Your task to perform on an android device: move an email to a new category in the gmail app Image 0: 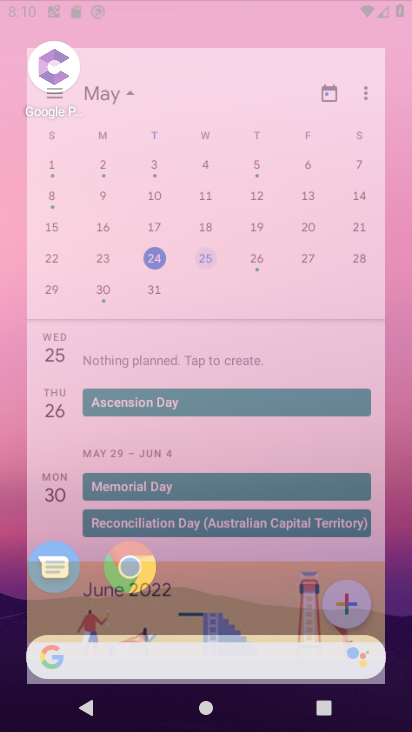
Step 0: drag from (293, 552) to (226, 43)
Your task to perform on an android device: move an email to a new category in the gmail app Image 1: 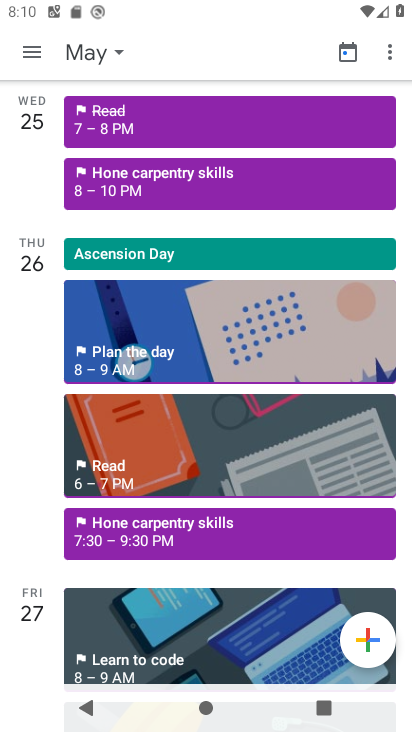
Step 1: press home button
Your task to perform on an android device: move an email to a new category in the gmail app Image 2: 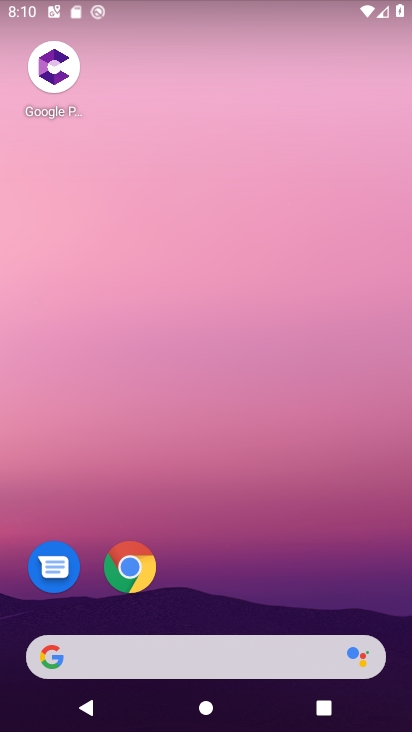
Step 2: drag from (252, 548) to (221, 29)
Your task to perform on an android device: move an email to a new category in the gmail app Image 3: 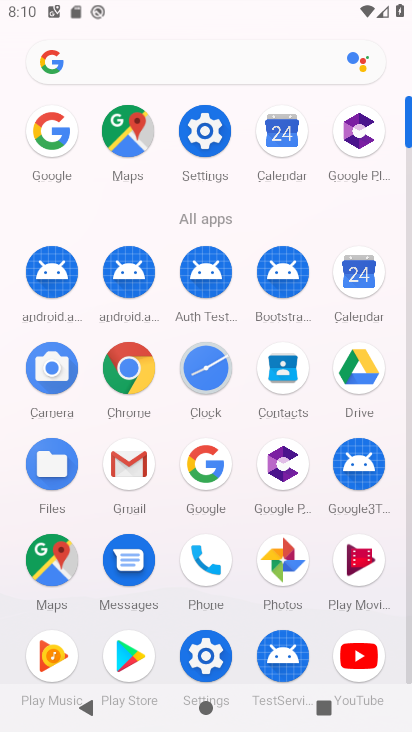
Step 3: click (132, 462)
Your task to perform on an android device: move an email to a new category in the gmail app Image 4: 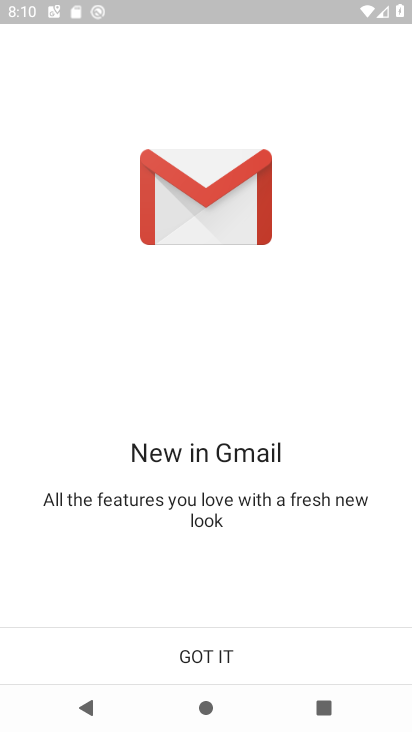
Step 4: click (238, 657)
Your task to perform on an android device: move an email to a new category in the gmail app Image 5: 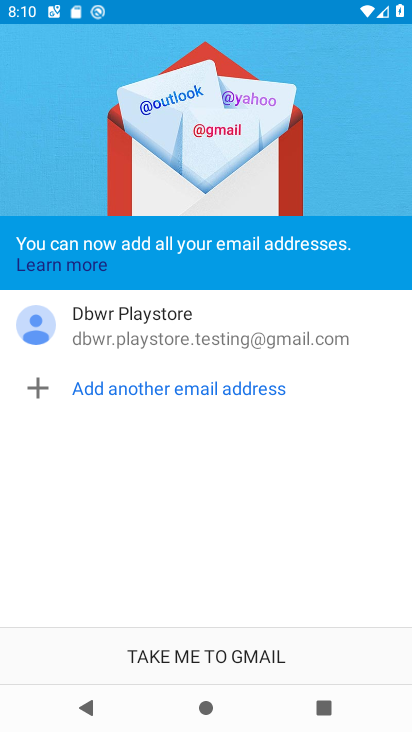
Step 5: click (239, 655)
Your task to perform on an android device: move an email to a new category in the gmail app Image 6: 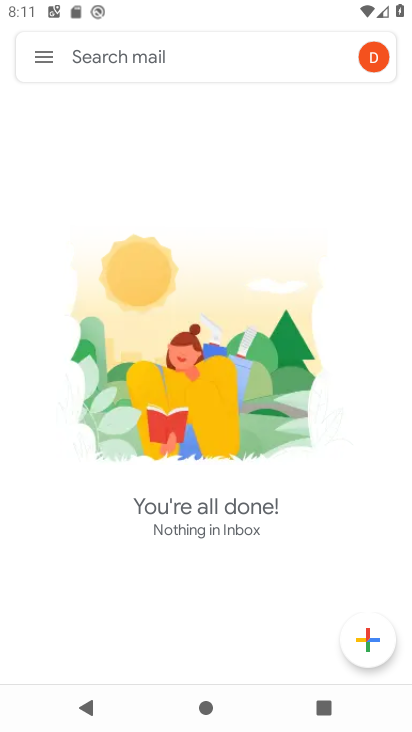
Step 6: click (43, 61)
Your task to perform on an android device: move an email to a new category in the gmail app Image 7: 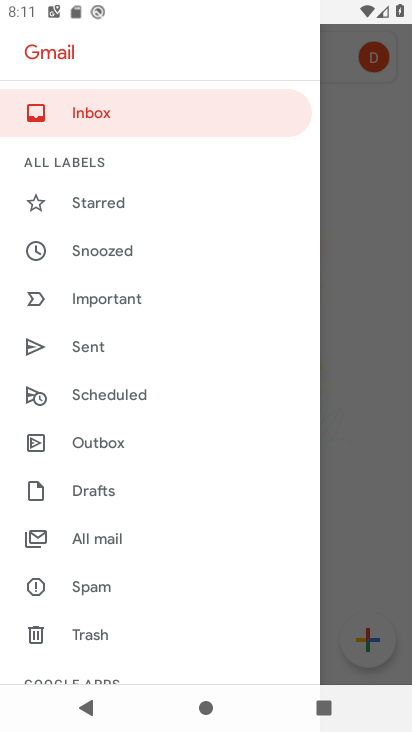
Step 7: click (118, 547)
Your task to perform on an android device: move an email to a new category in the gmail app Image 8: 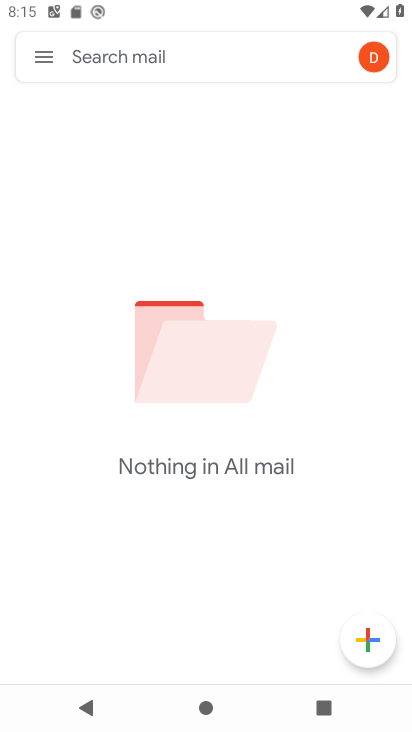
Step 8: task complete